Your task to perform on an android device: check android version Image 0: 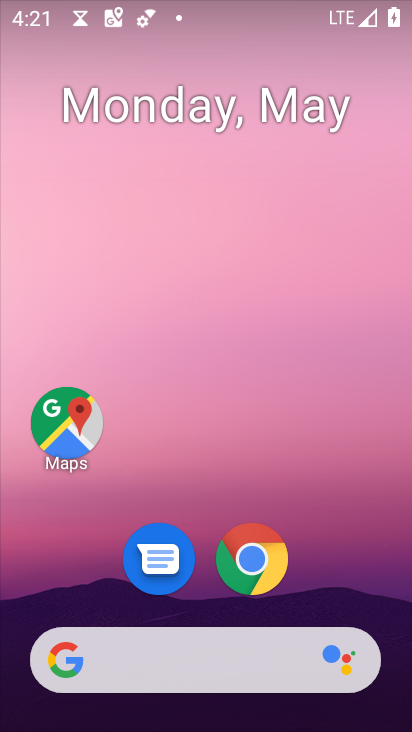
Step 0: drag from (305, 581) to (239, 104)
Your task to perform on an android device: check android version Image 1: 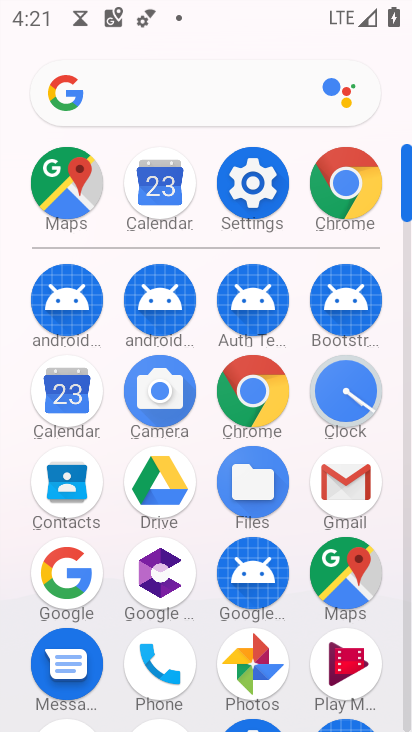
Step 1: click (248, 174)
Your task to perform on an android device: check android version Image 2: 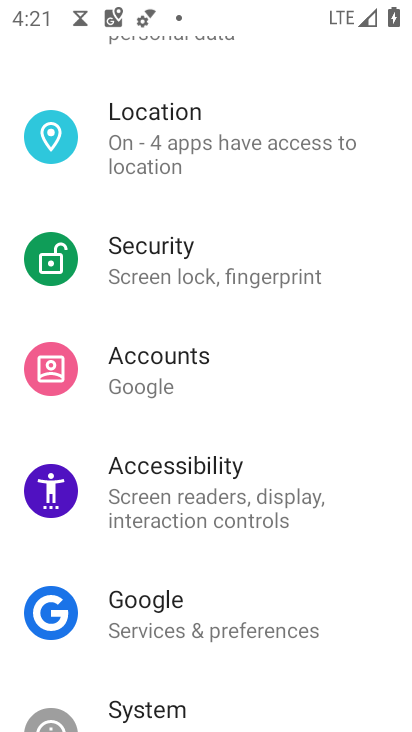
Step 2: drag from (243, 564) to (235, 62)
Your task to perform on an android device: check android version Image 3: 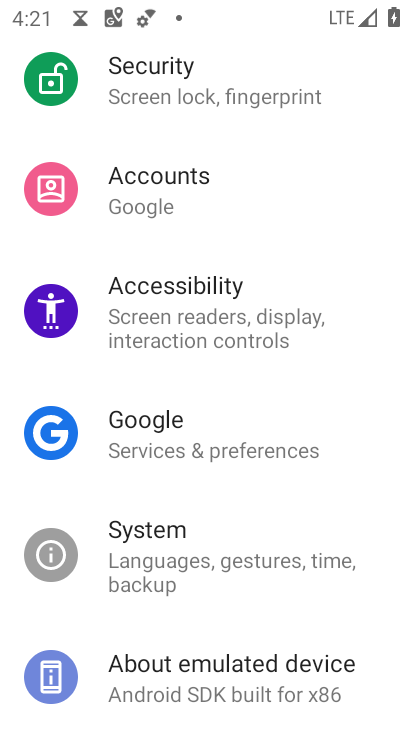
Step 3: click (246, 674)
Your task to perform on an android device: check android version Image 4: 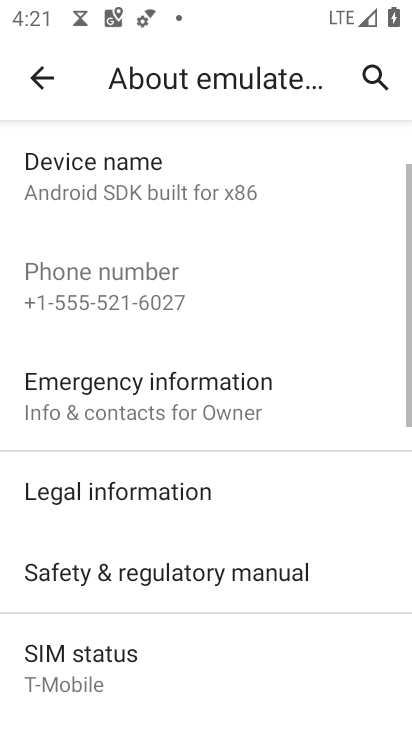
Step 4: drag from (246, 674) to (251, 233)
Your task to perform on an android device: check android version Image 5: 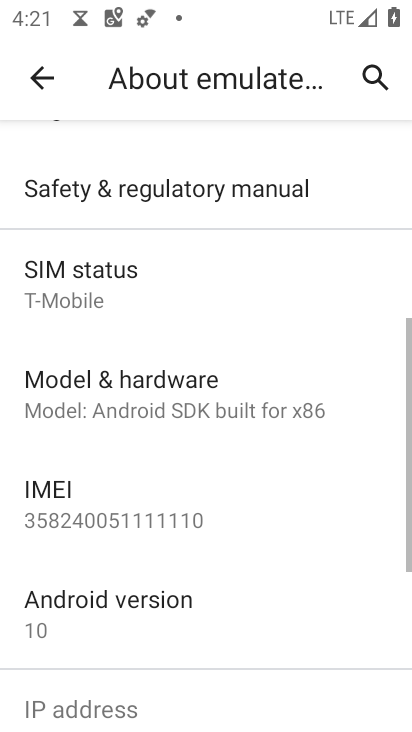
Step 5: drag from (222, 612) to (232, 367)
Your task to perform on an android device: check android version Image 6: 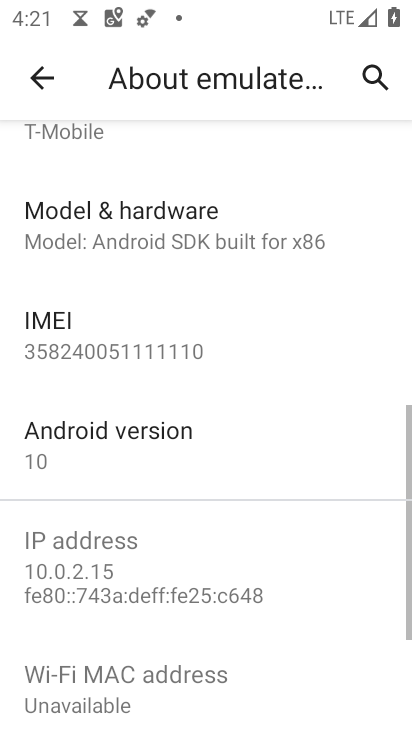
Step 6: click (120, 459)
Your task to perform on an android device: check android version Image 7: 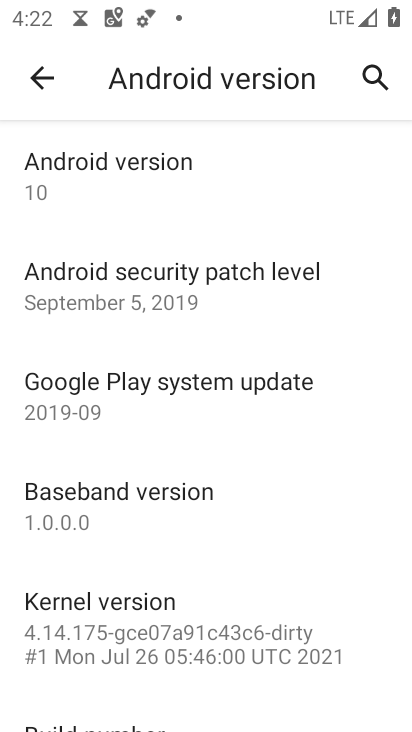
Step 7: task complete